Your task to perform on an android device: When is my next meeting? Image 0: 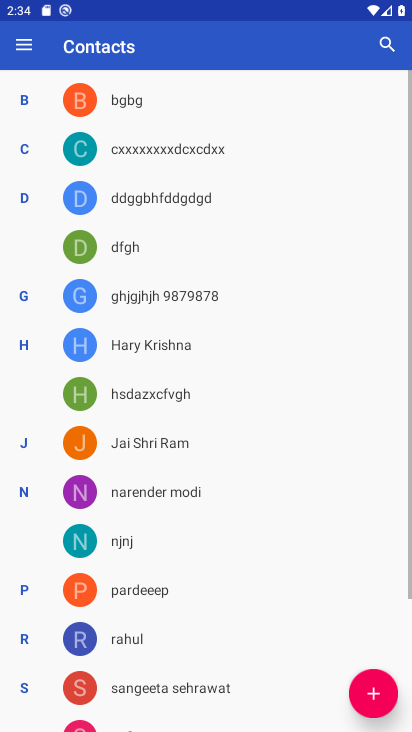
Step 0: drag from (301, 646) to (302, 259)
Your task to perform on an android device: When is my next meeting? Image 1: 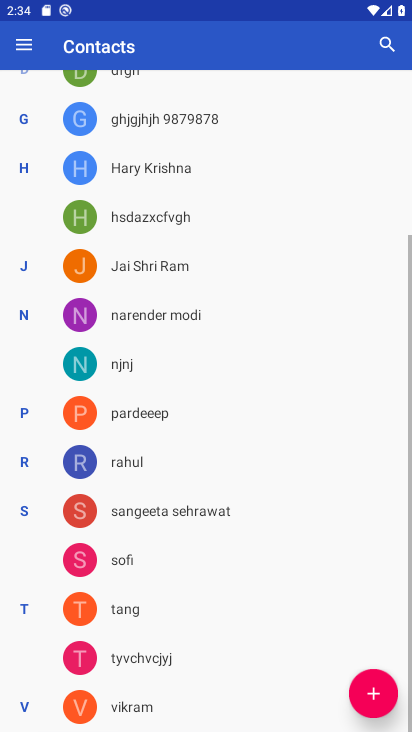
Step 1: press back button
Your task to perform on an android device: When is my next meeting? Image 2: 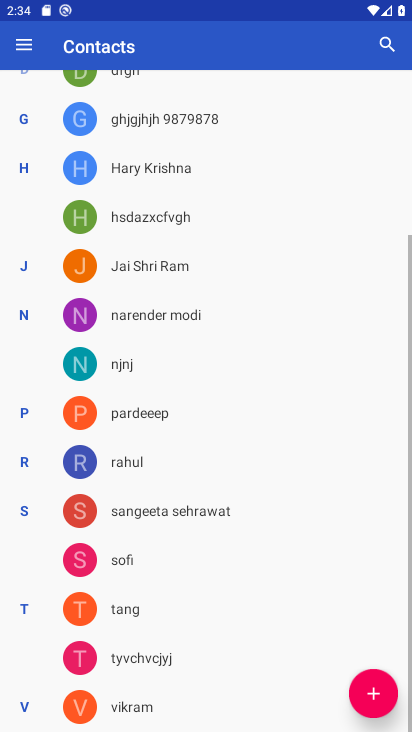
Step 2: press back button
Your task to perform on an android device: When is my next meeting? Image 3: 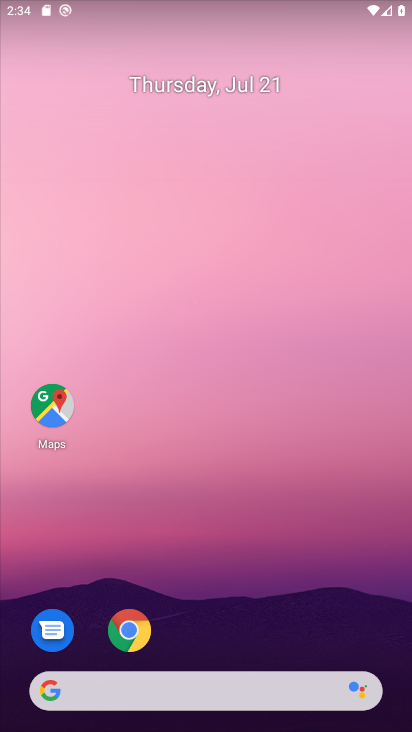
Step 3: drag from (246, 707) to (184, 417)
Your task to perform on an android device: When is my next meeting? Image 4: 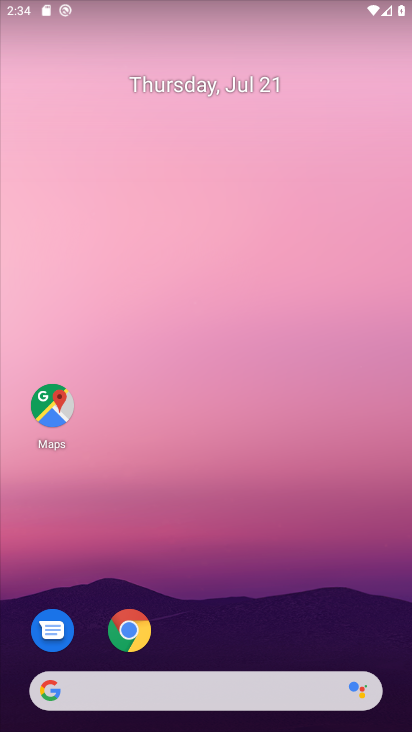
Step 4: drag from (287, 650) to (264, 262)
Your task to perform on an android device: When is my next meeting? Image 5: 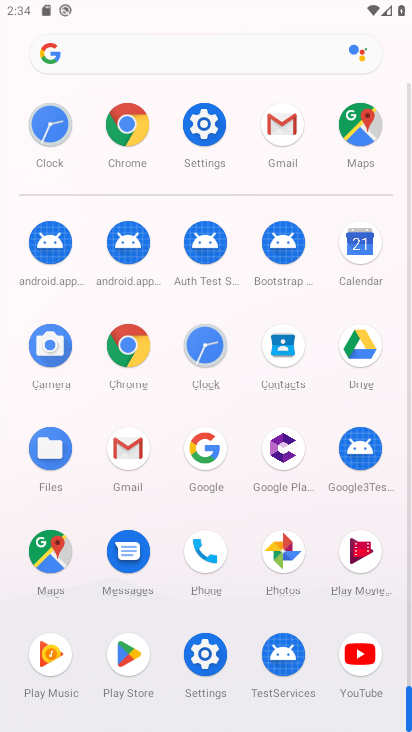
Step 5: click (212, 115)
Your task to perform on an android device: When is my next meeting? Image 6: 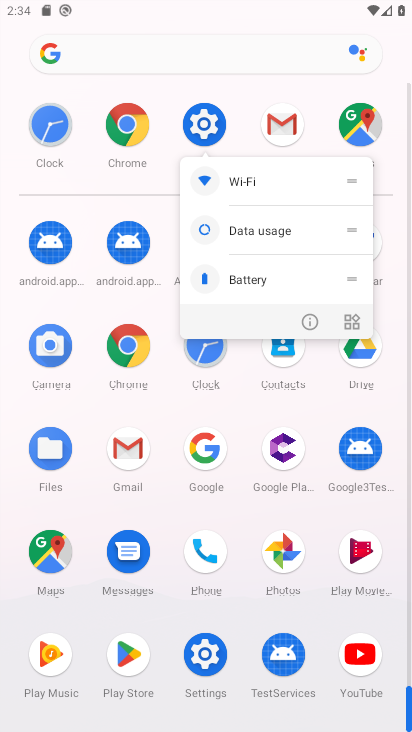
Step 6: click (212, 114)
Your task to perform on an android device: When is my next meeting? Image 7: 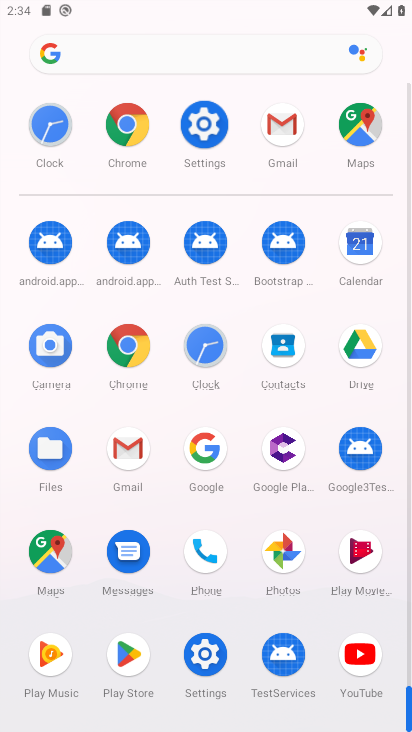
Step 7: click (216, 116)
Your task to perform on an android device: When is my next meeting? Image 8: 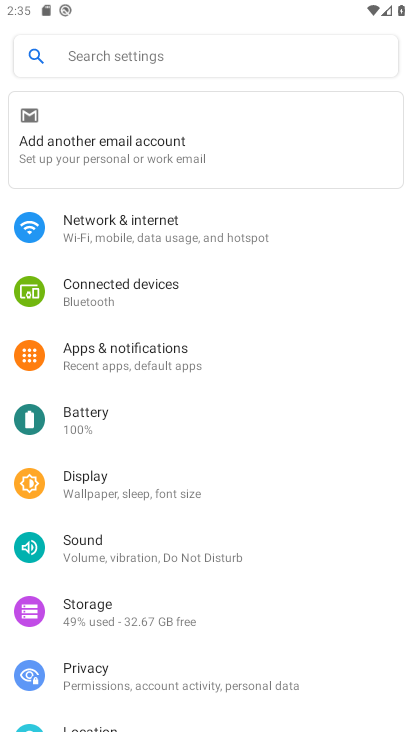
Step 8: press back button
Your task to perform on an android device: When is my next meeting? Image 9: 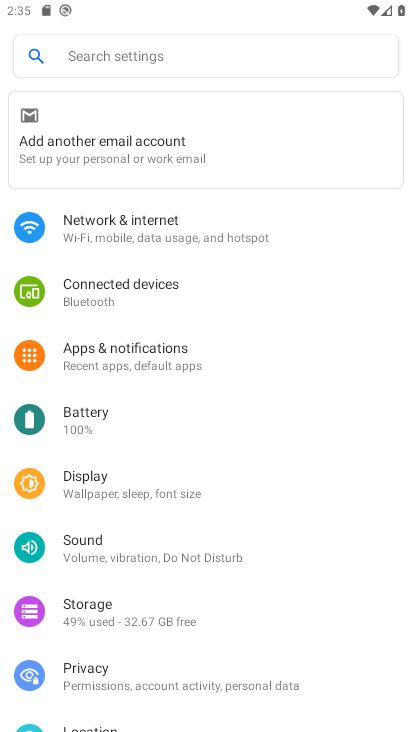
Step 9: press back button
Your task to perform on an android device: When is my next meeting? Image 10: 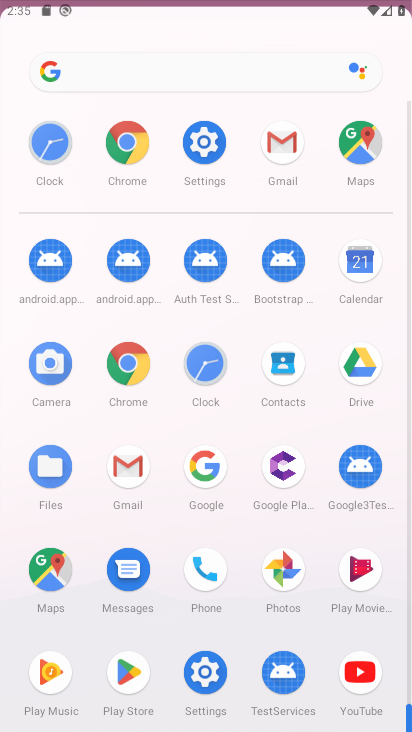
Step 10: press back button
Your task to perform on an android device: When is my next meeting? Image 11: 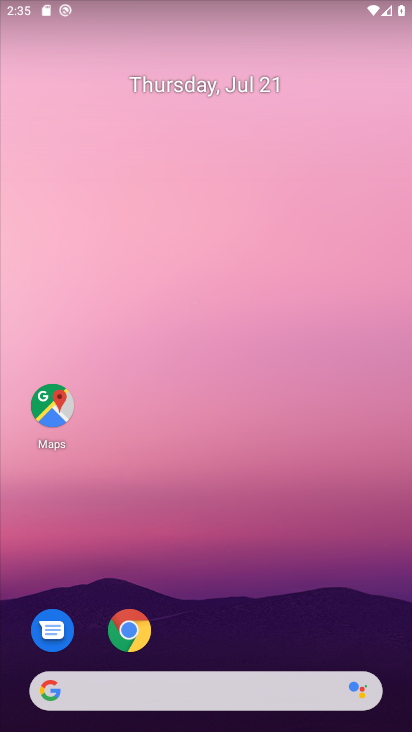
Step 11: drag from (199, 564) to (206, 246)
Your task to perform on an android device: When is my next meeting? Image 12: 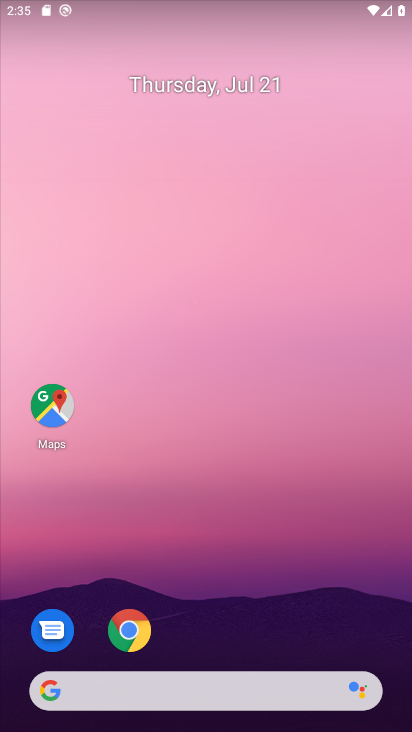
Step 12: drag from (283, 559) to (227, 137)
Your task to perform on an android device: When is my next meeting? Image 13: 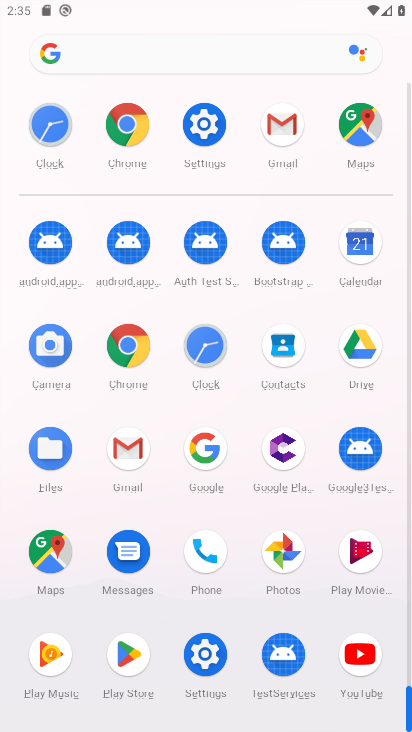
Step 13: click (197, 146)
Your task to perform on an android device: When is my next meeting? Image 14: 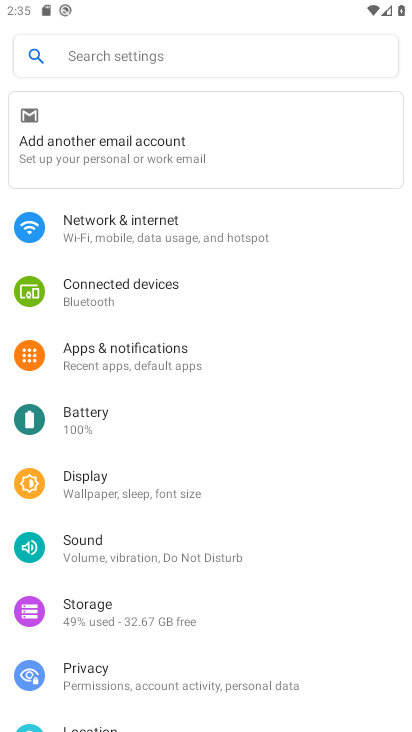
Step 14: press back button
Your task to perform on an android device: When is my next meeting? Image 15: 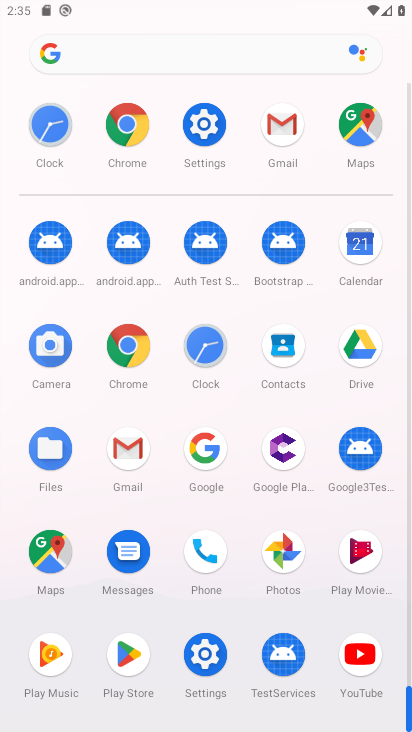
Step 15: click (357, 251)
Your task to perform on an android device: When is my next meeting? Image 16: 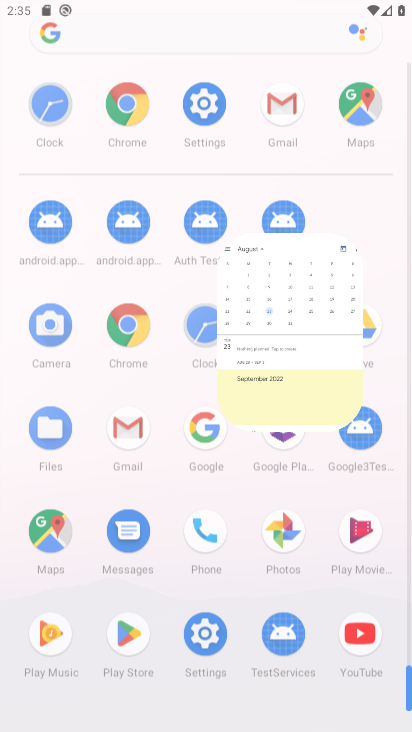
Step 16: click (357, 249)
Your task to perform on an android device: When is my next meeting? Image 17: 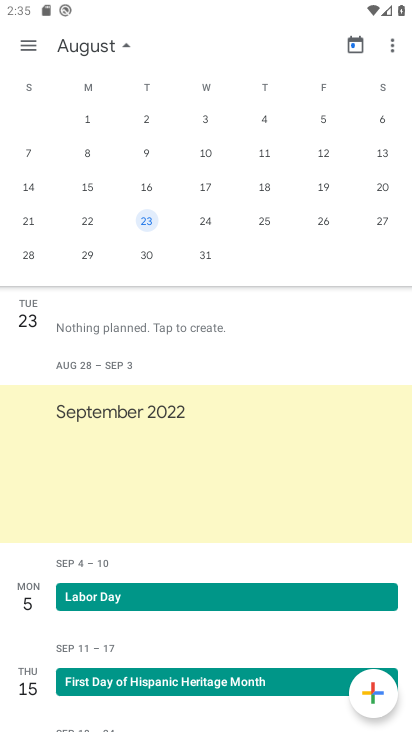
Step 17: drag from (20, 199) to (393, 212)
Your task to perform on an android device: When is my next meeting? Image 18: 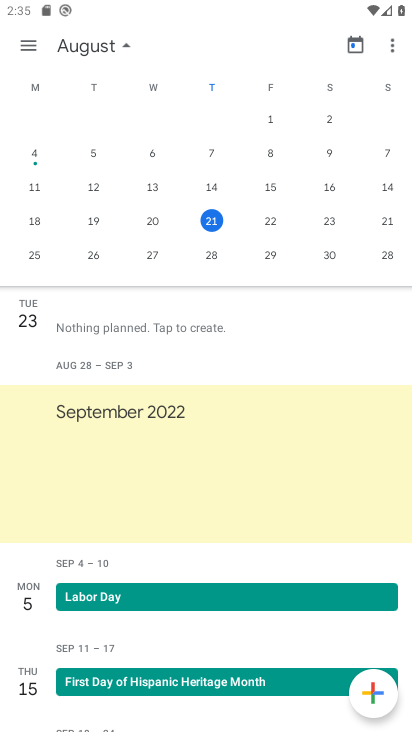
Step 18: drag from (215, 183) to (408, 212)
Your task to perform on an android device: When is my next meeting? Image 19: 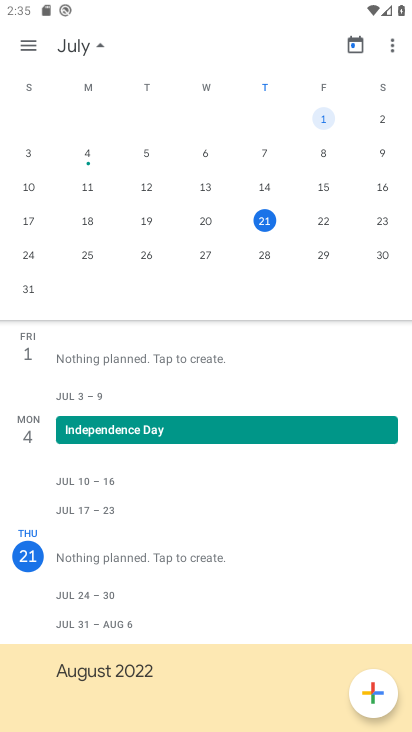
Step 19: click (333, 222)
Your task to perform on an android device: When is my next meeting? Image 20: 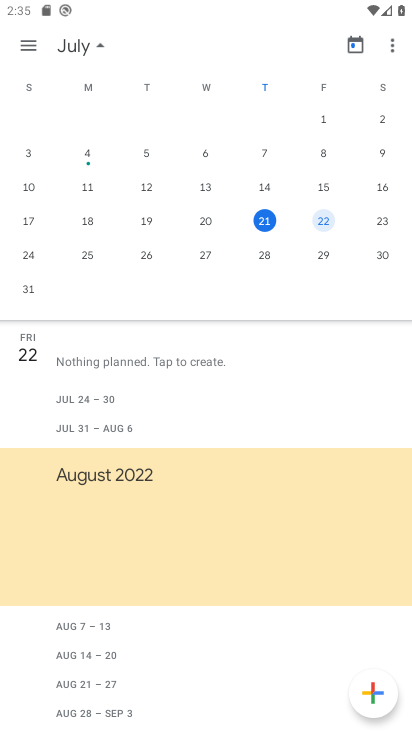
Step 20: click (332, 222)
Your task to perform on an android device: When is my next meeting? Image 21: 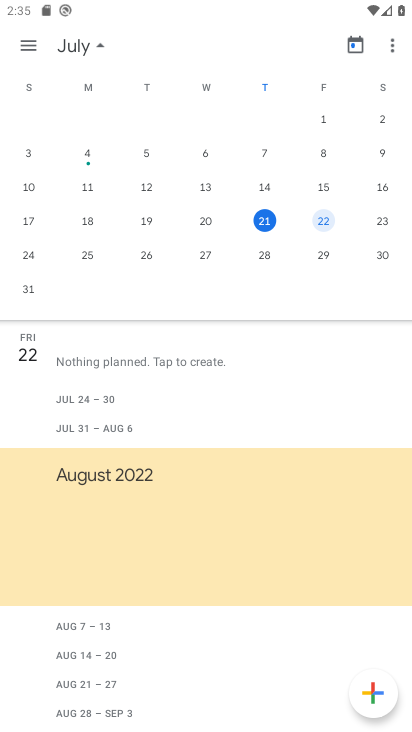
Step 21: task complete